Your task to perform on an android device: Go to internet settings Image 0: 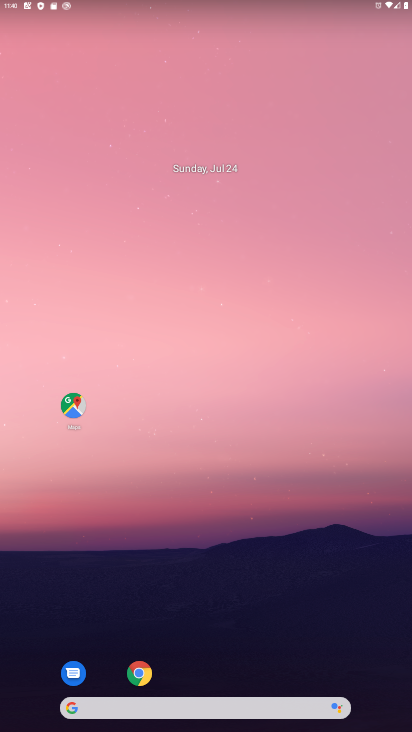
Step 0: press home button
Your task to perform on an android device: Go to internet settings Image 1: 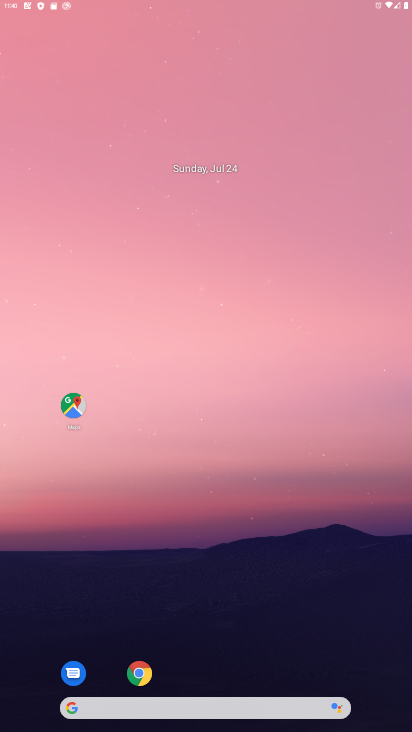
Step 1: drag from (320, 575) to (309, 162)
Your task to perform on an android device: Go to internet settings Image 2: 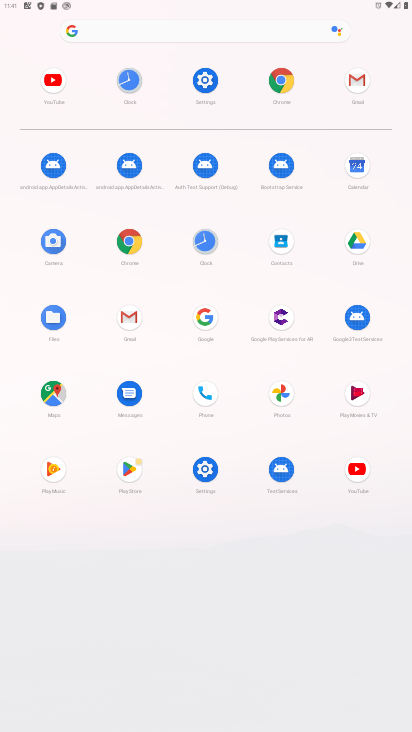
Step 2: click (210, 84)
Your task to perform on an android device: Go to internet settings Image 3: 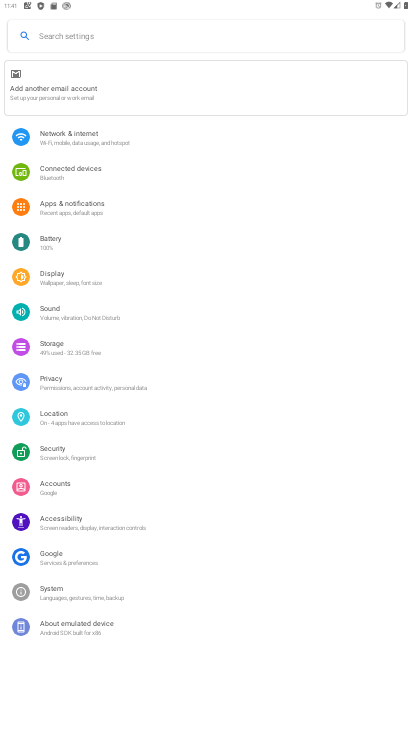
Step 3: click (75, 140)
Your task to perform on an android device: Go to internet settings Image 4: 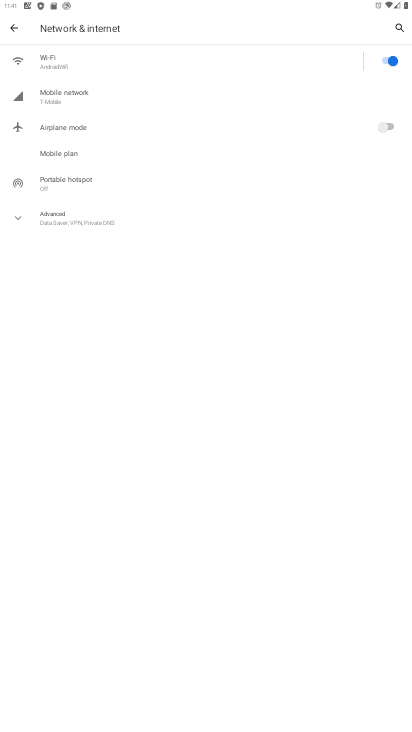
Step 4: click (69, 216)
Your task to perform on an android device: Go to internet settings Image 5: 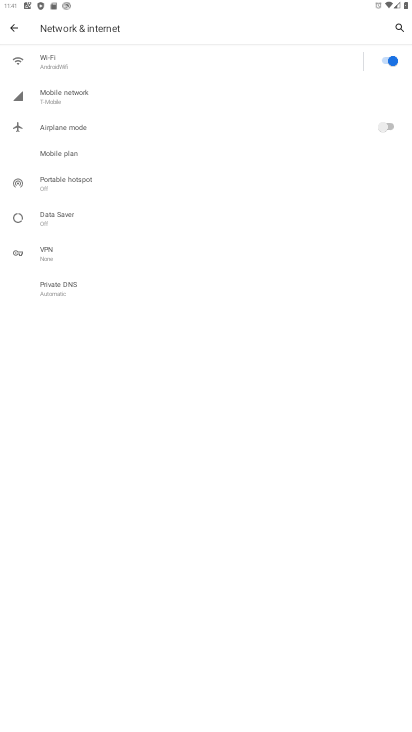
Step 5: task complete